Your task to perform on an android device: open app "Booking.com: Hotels and more" (install if not already installed) Image 0: 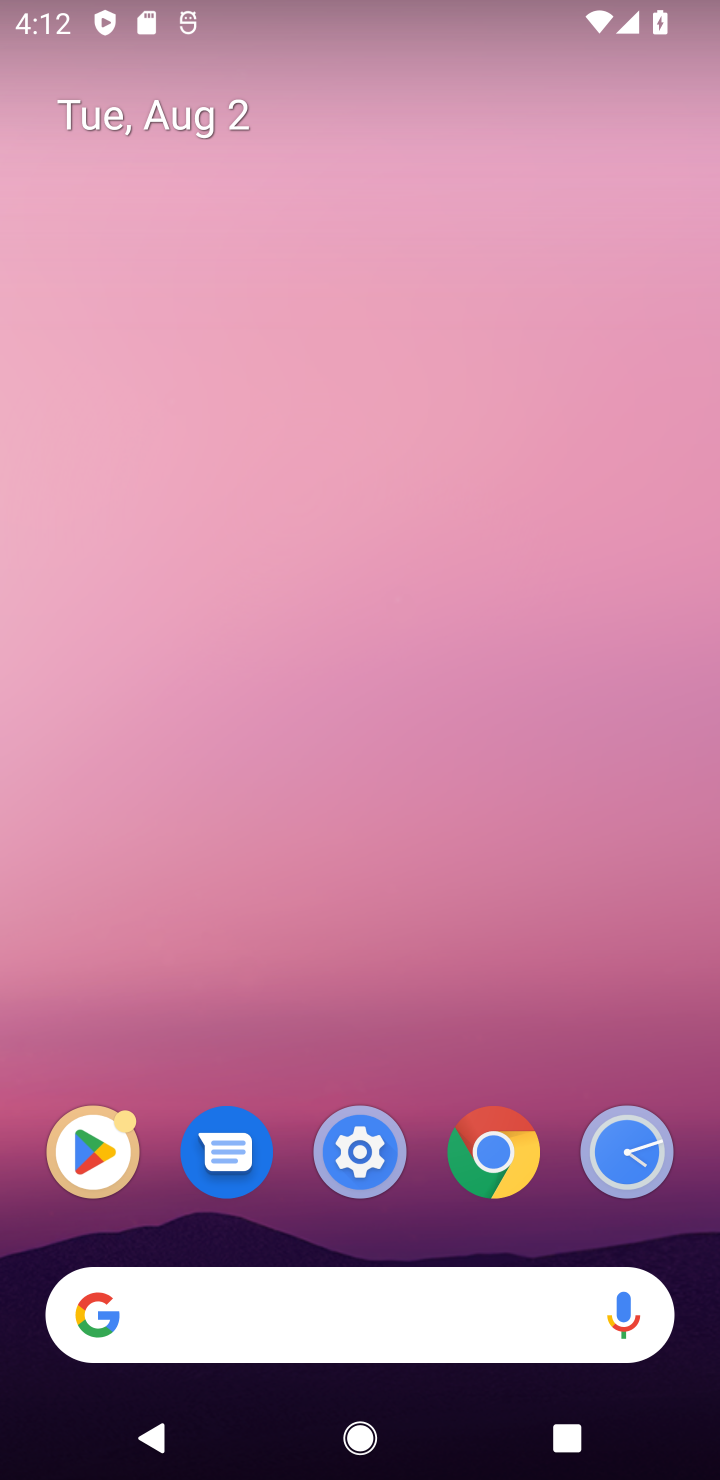
Step 0: drag from (373, 1236) to (252, 65)
Your task to perform on an android device: open app "Booking.com: Hotels and more" (install if not already installed) Image 1: 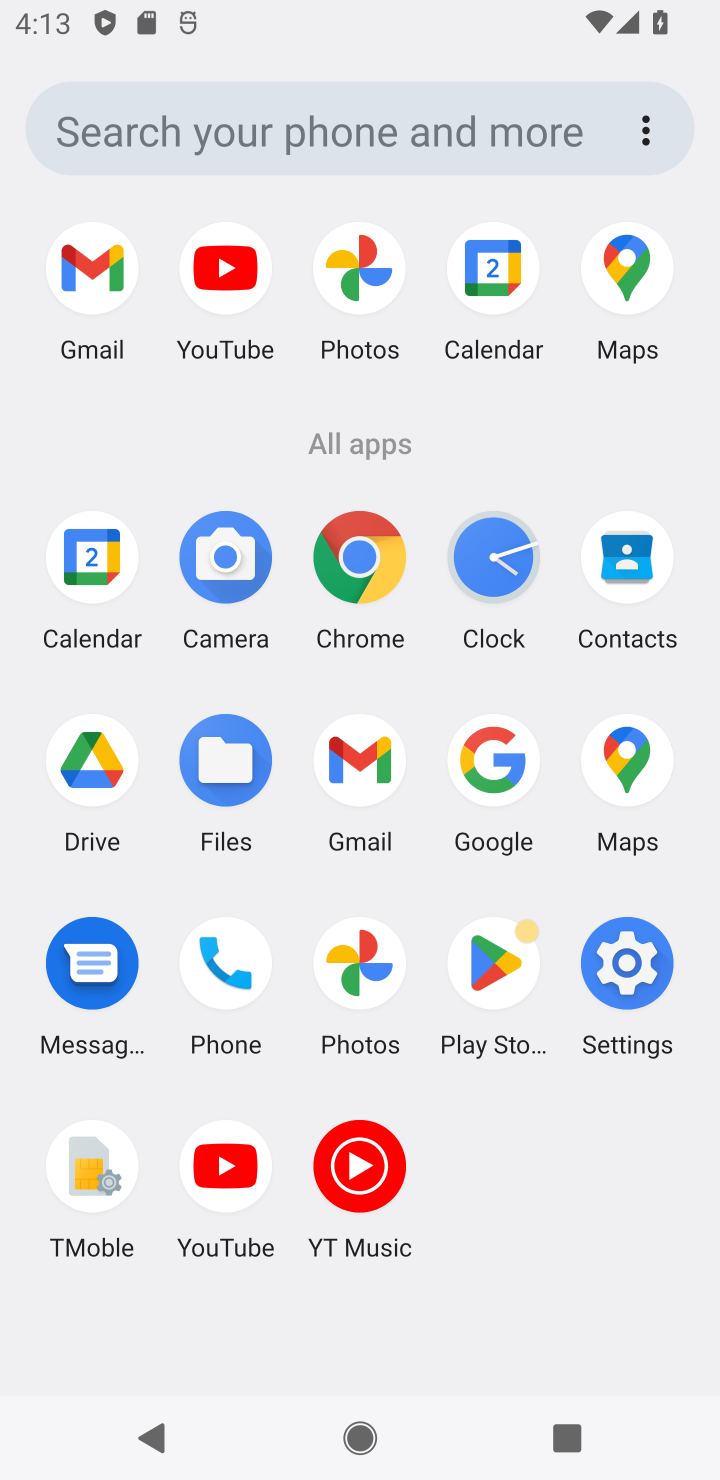
Step 1: click (483, 969)
Your task to perform on an android device: open app "Booking.com: Hotels and more" (install if not already installed) Image 2: 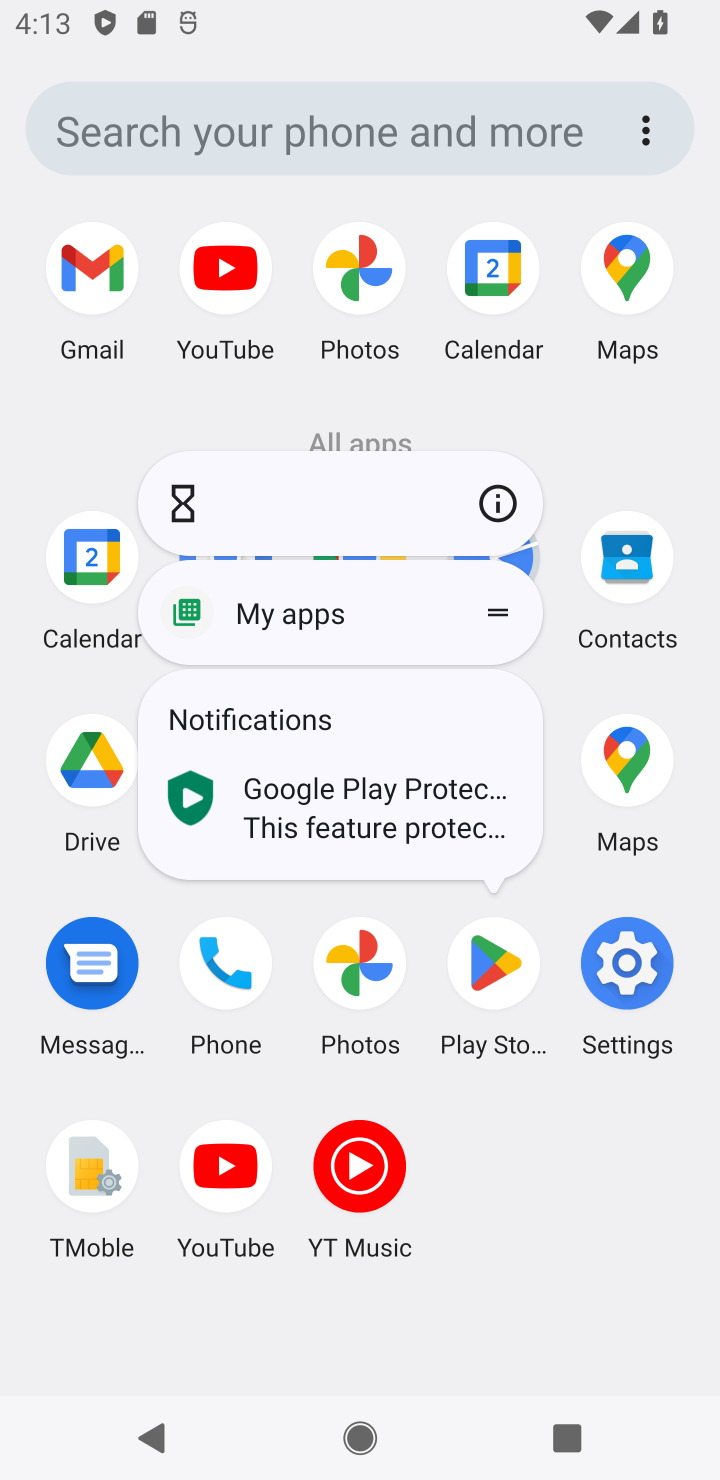
Step 2: click (494, 975)
Your task to perform on an android device: open app "Booking.com: Hotels and more" (install if not already installed) Image 3: 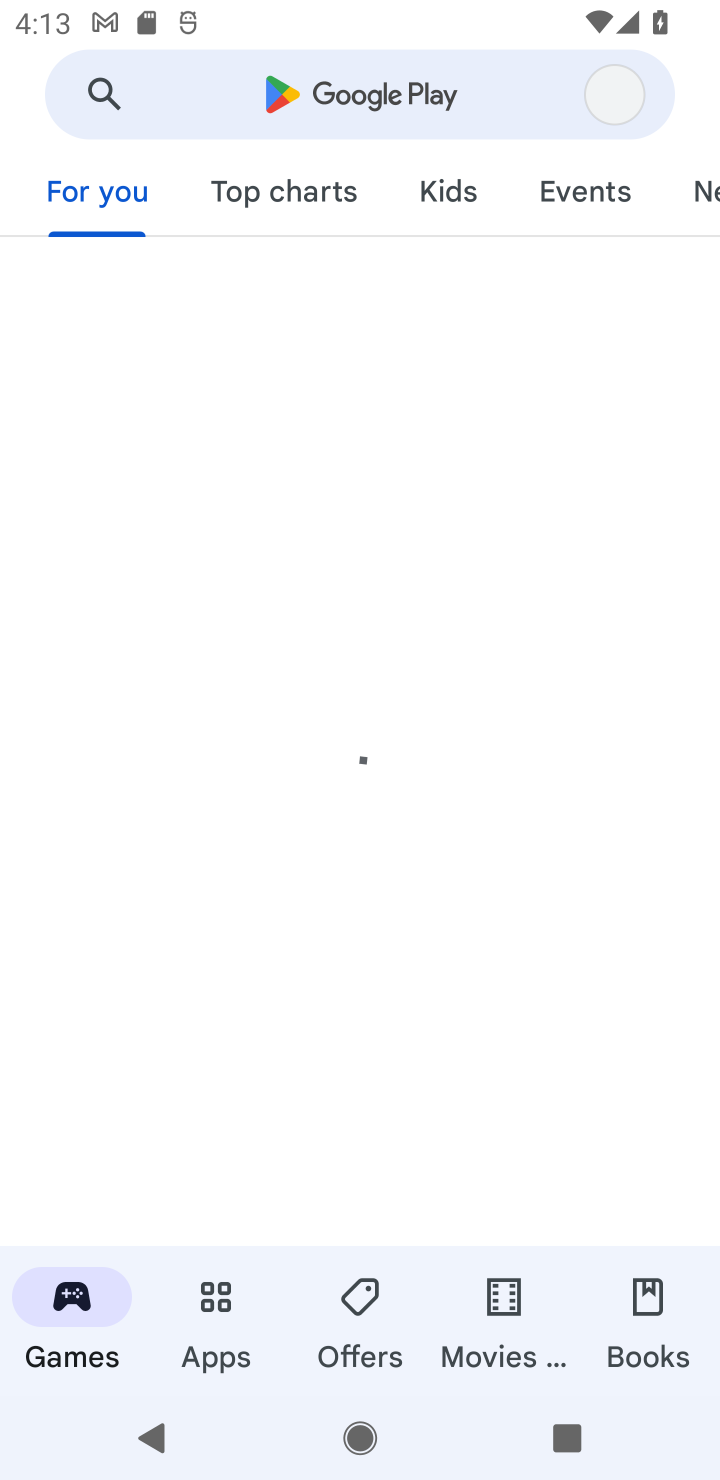
Step 3: click (305, 114)
Your task to perform on an android device: open app "Booking.com: Hotels and more" (install if not already installed) Image 4: 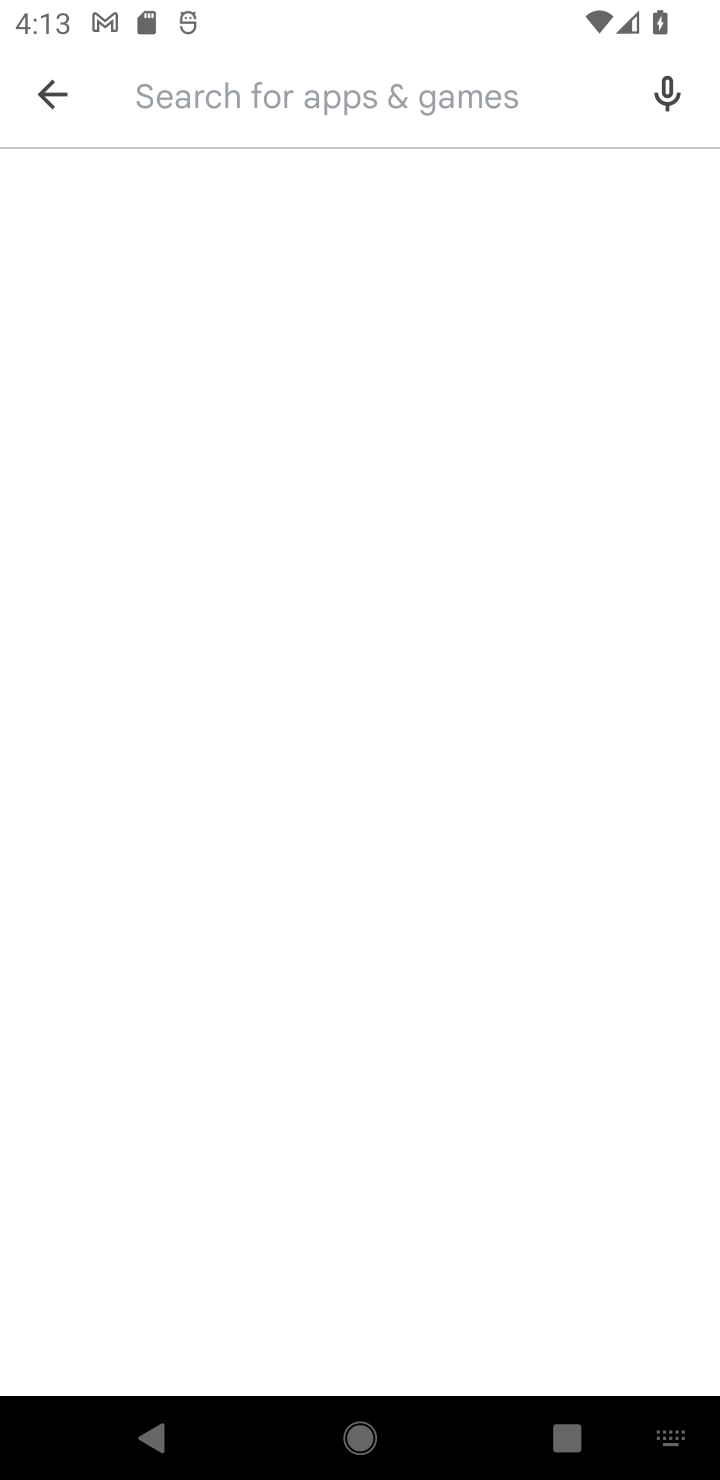
Step 4: type "Booking.com: Hotels and more"
Your task to perform on an android device: open app "Booking.com: Hotels and more" (install if not already installed) Image 5: 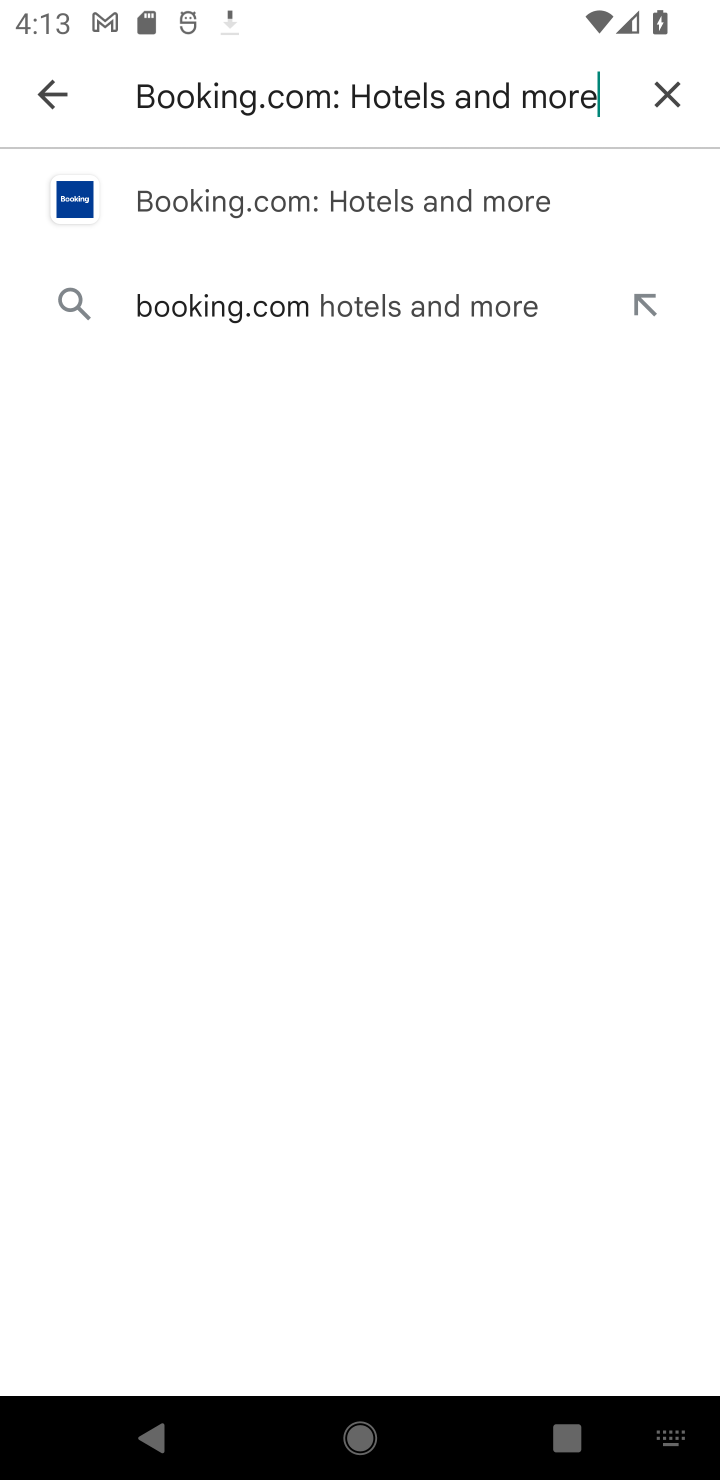
Step 5: type ""
Your task to perform on an android device: open app "Booking.com: Hotels and more" (install if not already installed) Image 6: 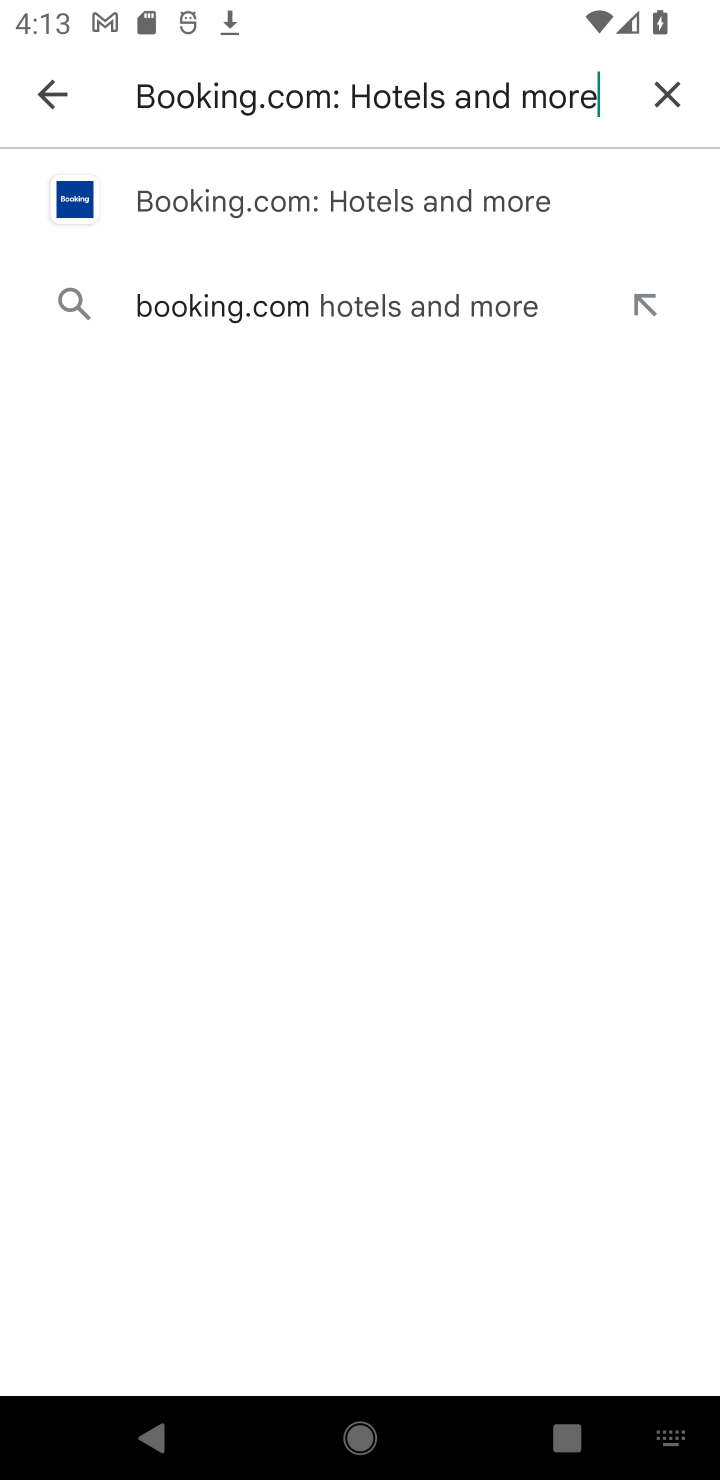
Step 6: click (170, 181)
Your task to perform on an android device: open app "Booking.com: Hotels and more" (install if not already installed) Image 7: 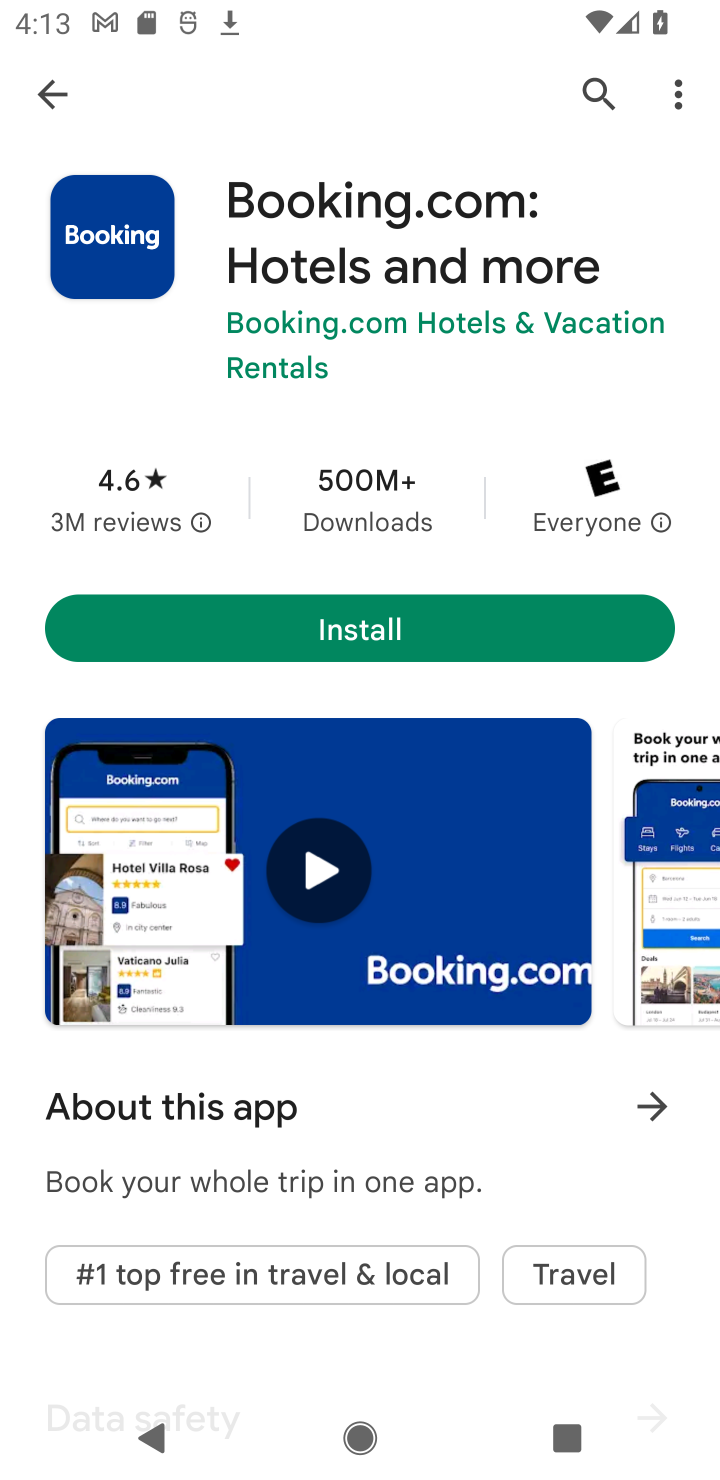
Step 7: click (365, 610)
Your task to perform on an android device: open app "Booking.com: Hotels and more" (install if not already installed) Image 8: 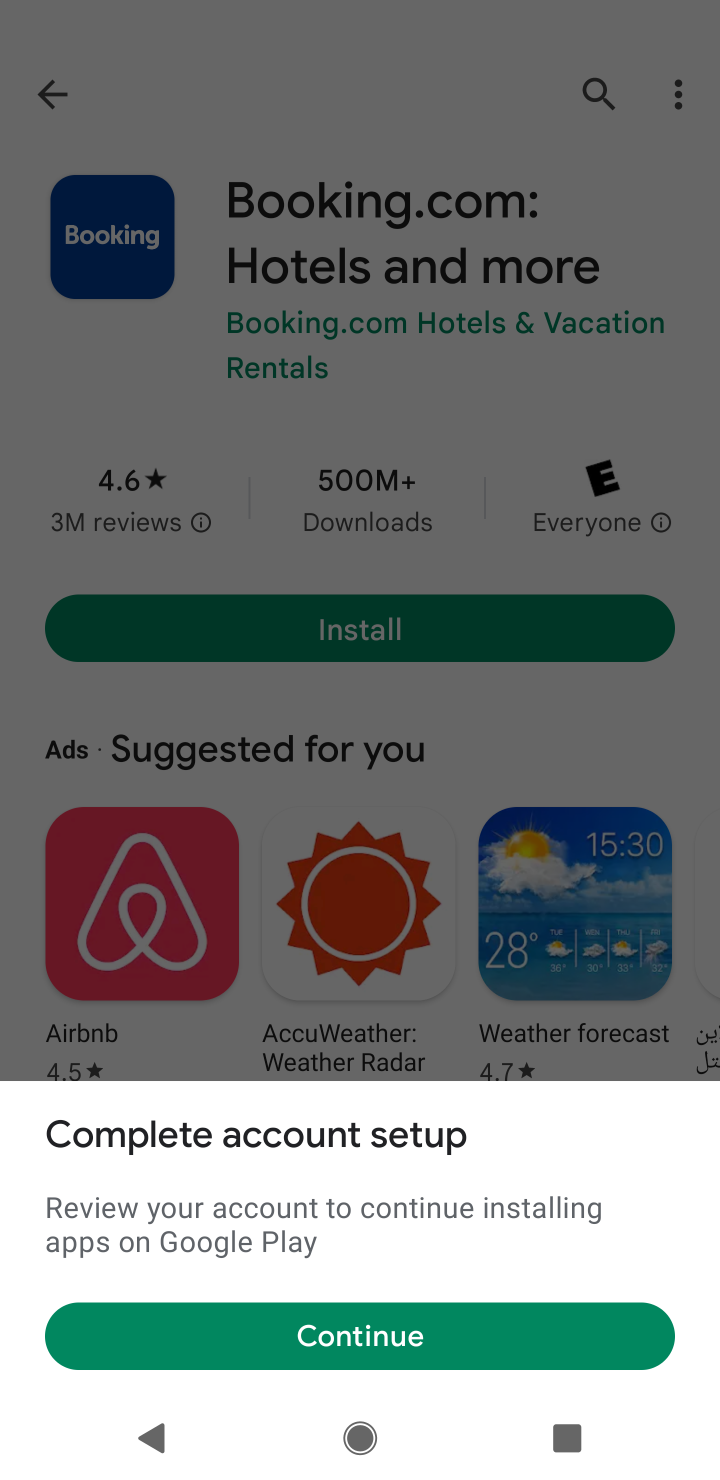
Step 8: click (419, 1352)
Your task to perform on an android device: open app "Booking.com: Hotels and more" (install if not already installed) Image 9: 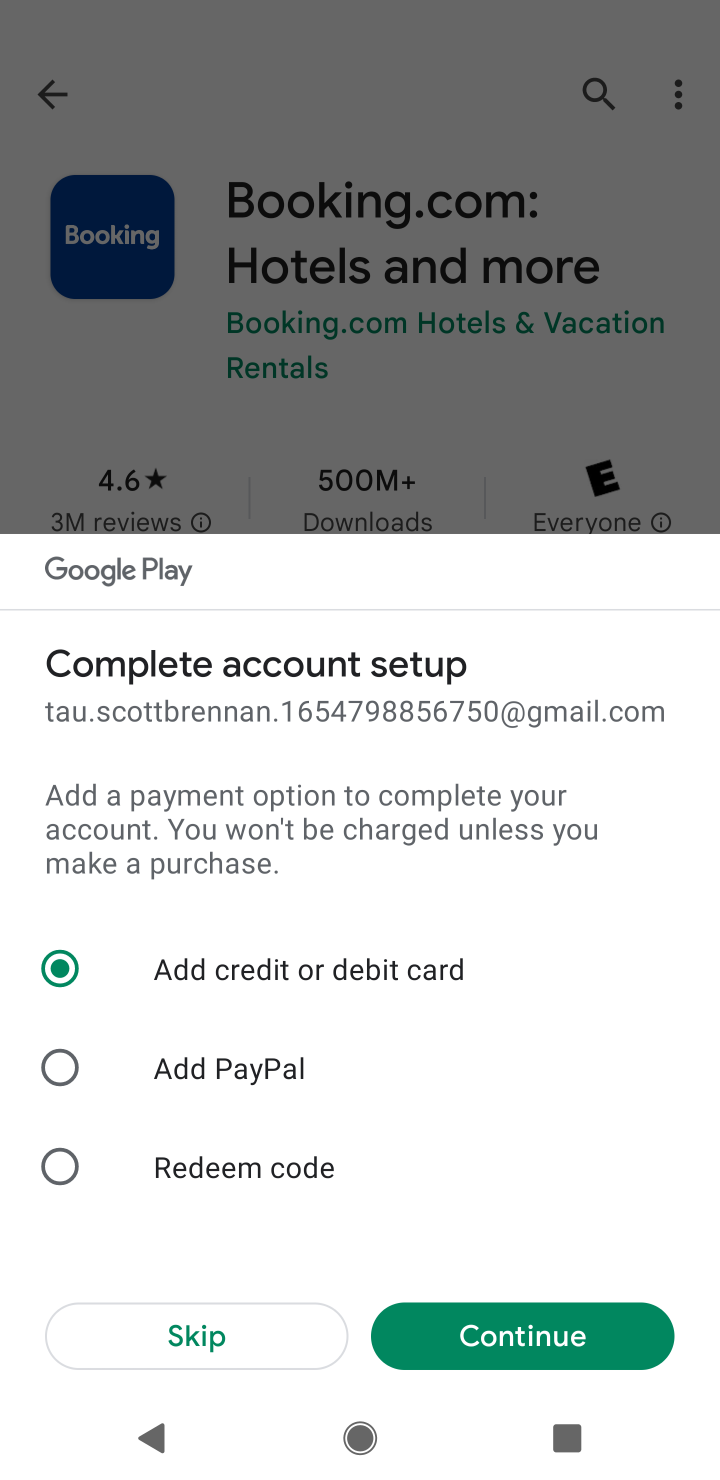
Step 9: click (174, 1331)
Your task to perform on an android device: open app "Booking.com: Hotels and more" (install if not already installed) Image 10: 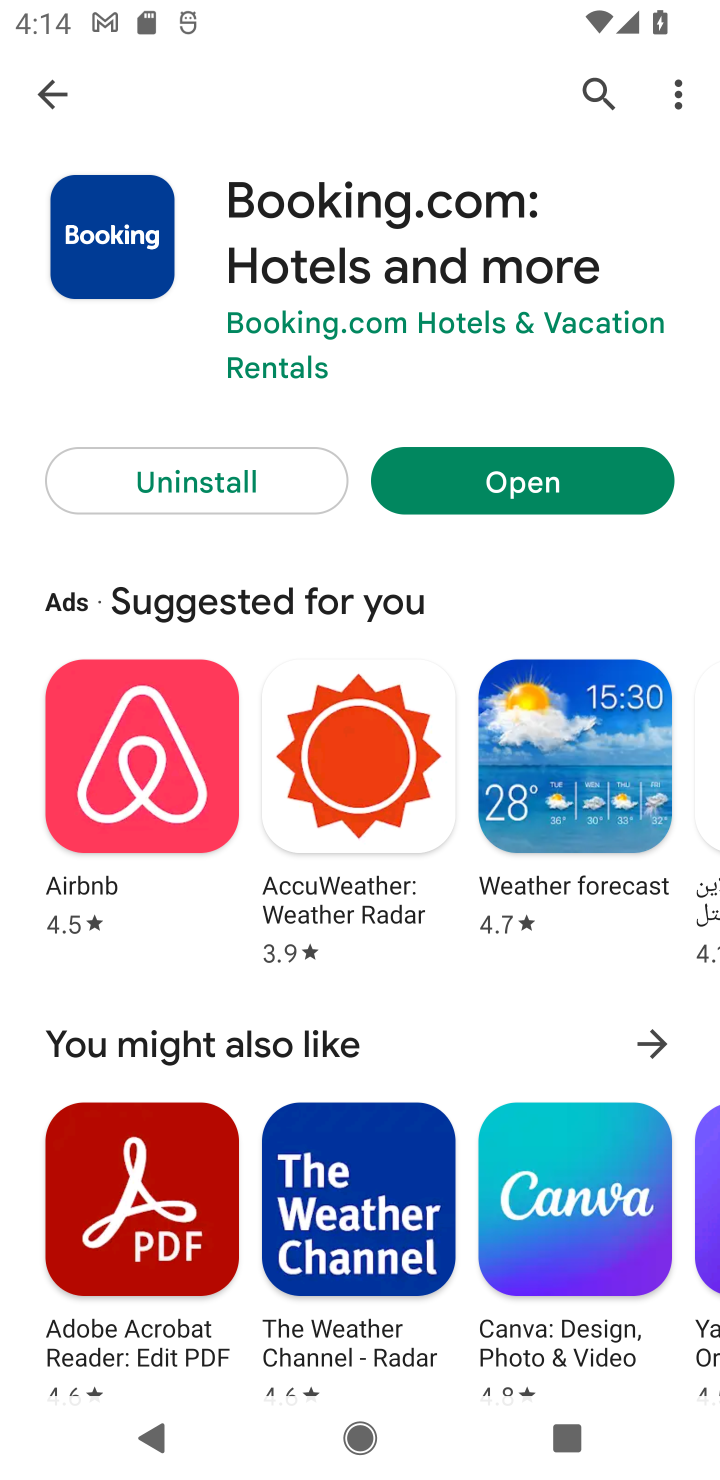
Step 10: click (468, 459)
Your task to perform on an android device: open app "Booking.com: Hotels and more" (install if not already installed) Image 11: 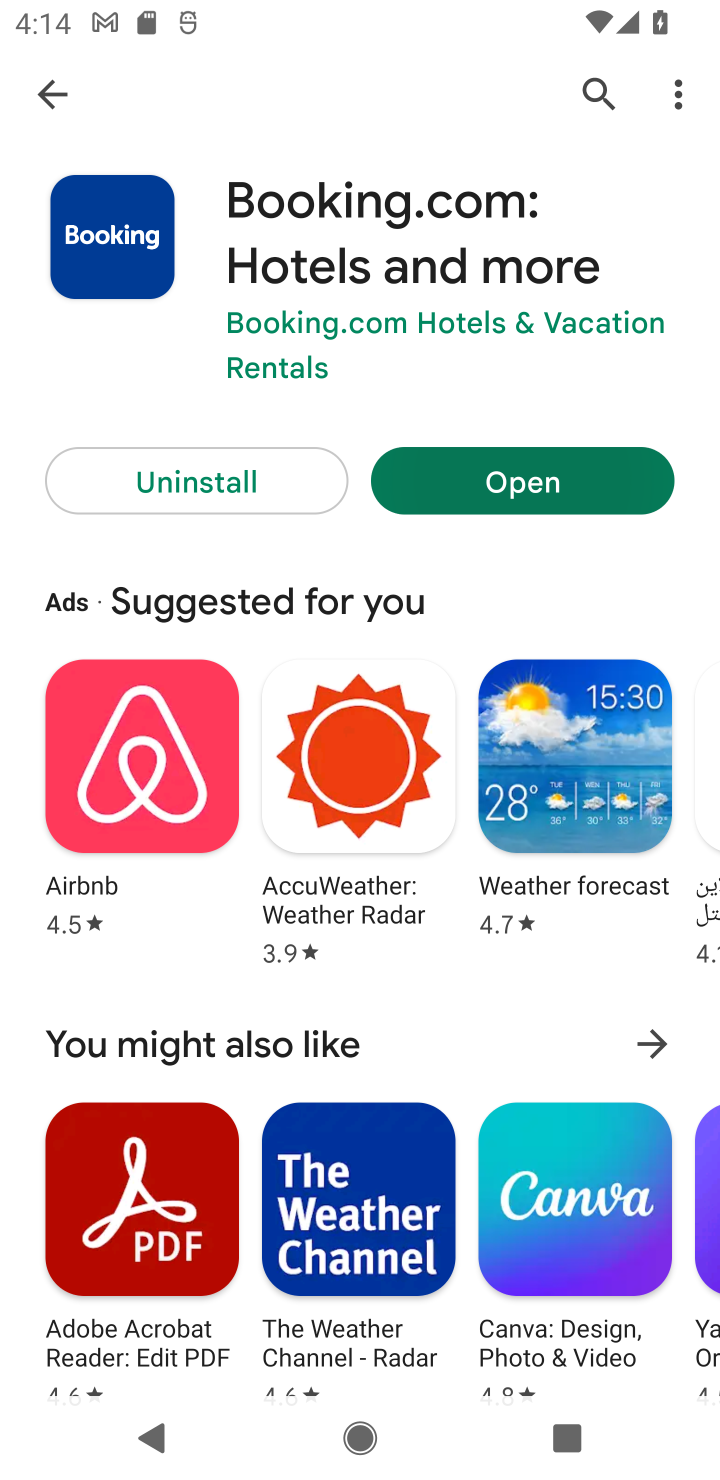
Step 11: task complete